Your task to perform on an android device: create a new album in the google photos Image 0: 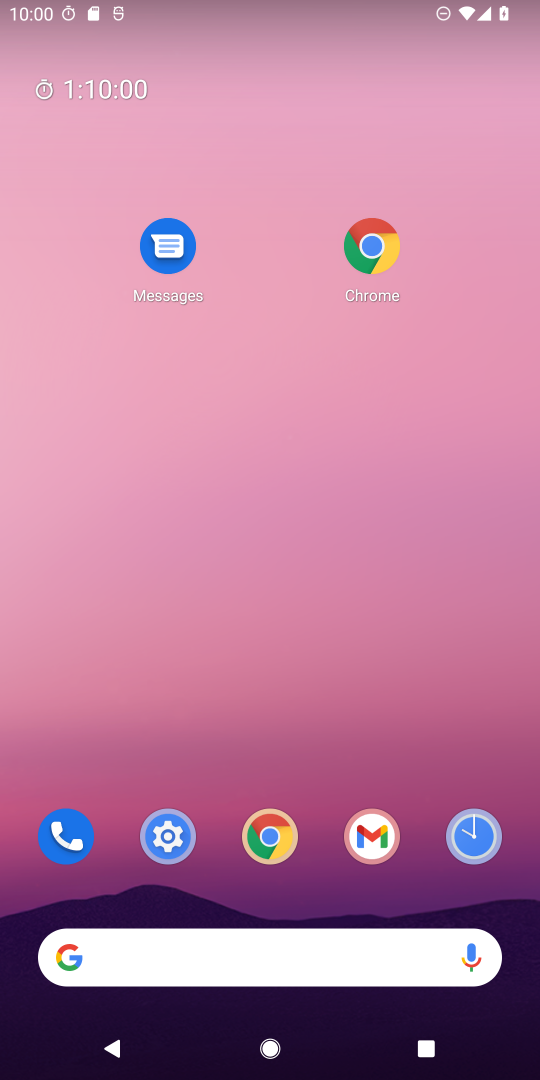
Step 0: drag from (129, 868) to (173, 66)
Your task to perform on an android device: create a new album in the google photos Image 1: 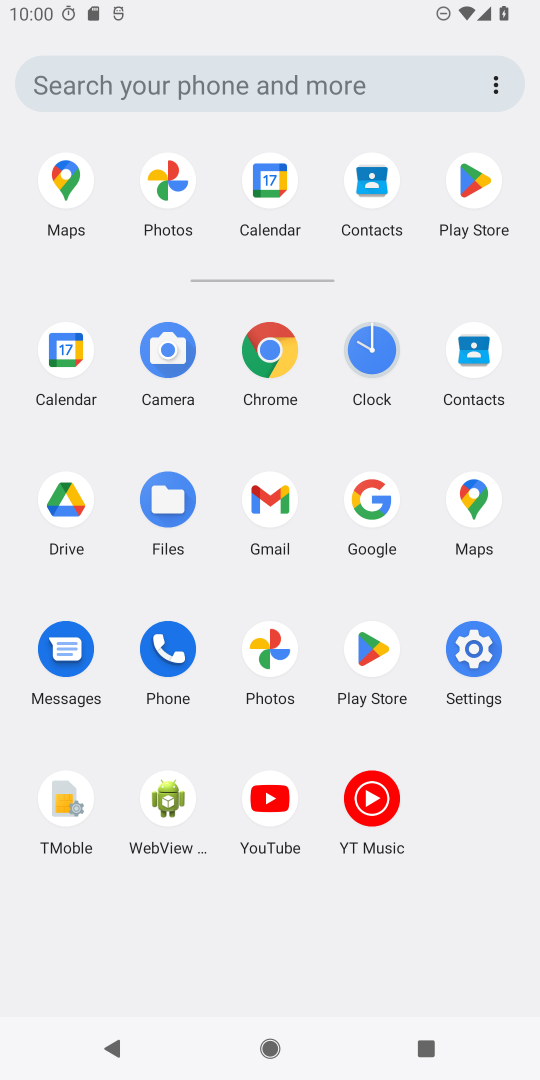
Step 1: click (245, 643)
Your task to perform on an android device: create a new album in the google photos Image 2: 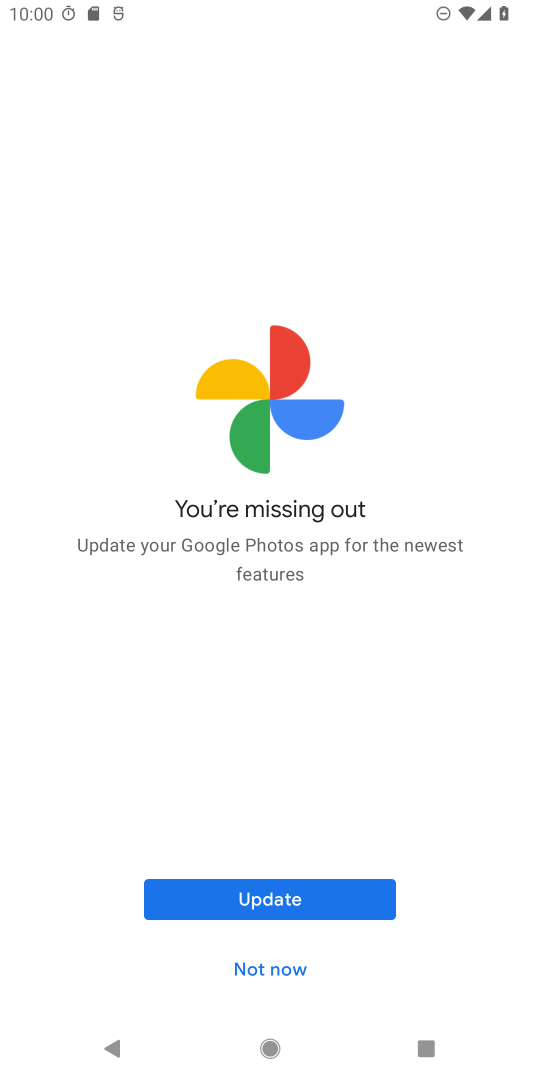
Step 2: click (250, 977)
Your task to perform on an android device: create a new album in the google photos Image 3: 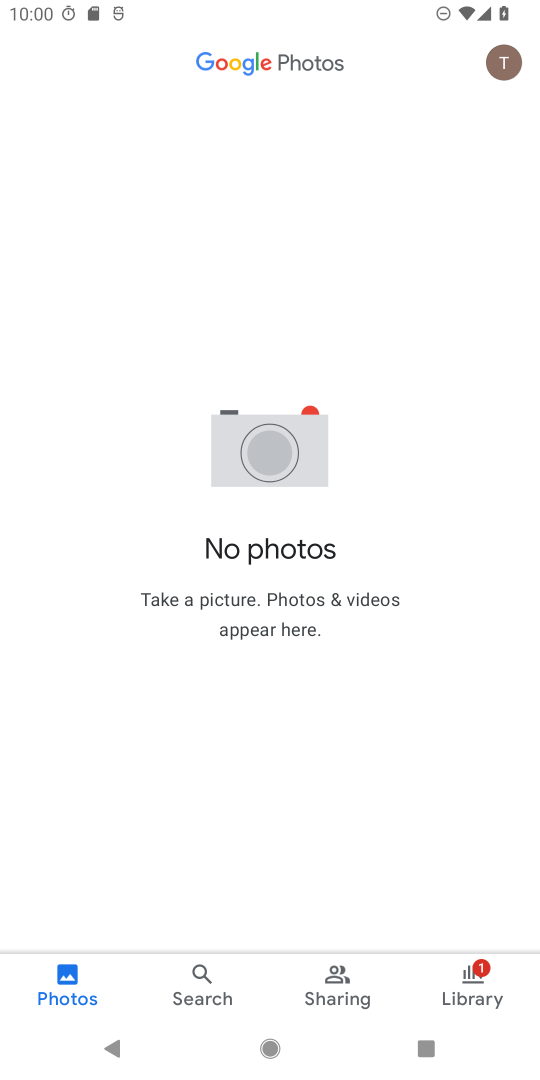
Step 3: click (202, 974)
Your task to perform on an android device: create a new album in the google photos Image 4: 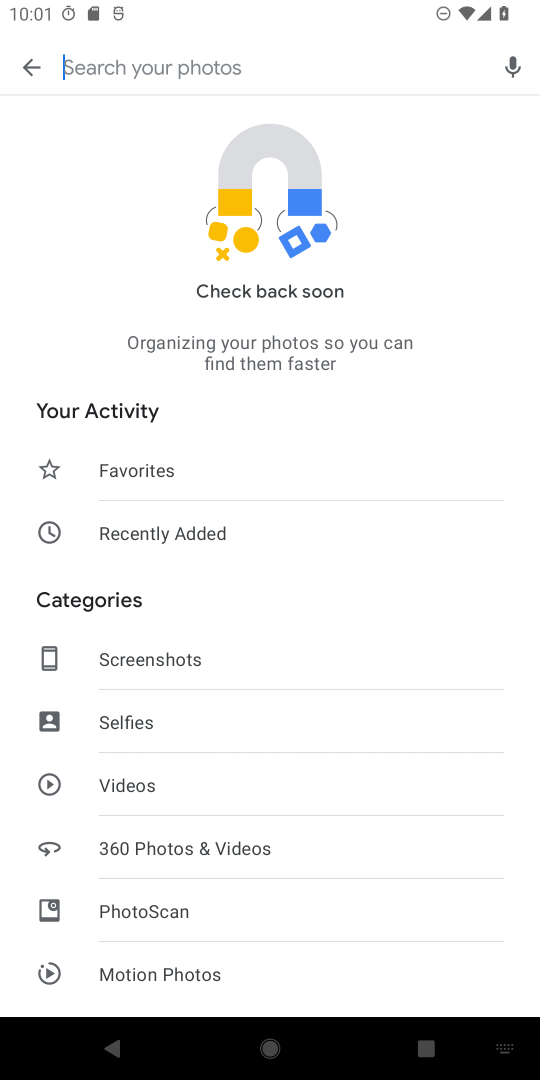
Step 4: click (82, 980)
Your task to perform on an android device: create a new album in the google photos Image 5: 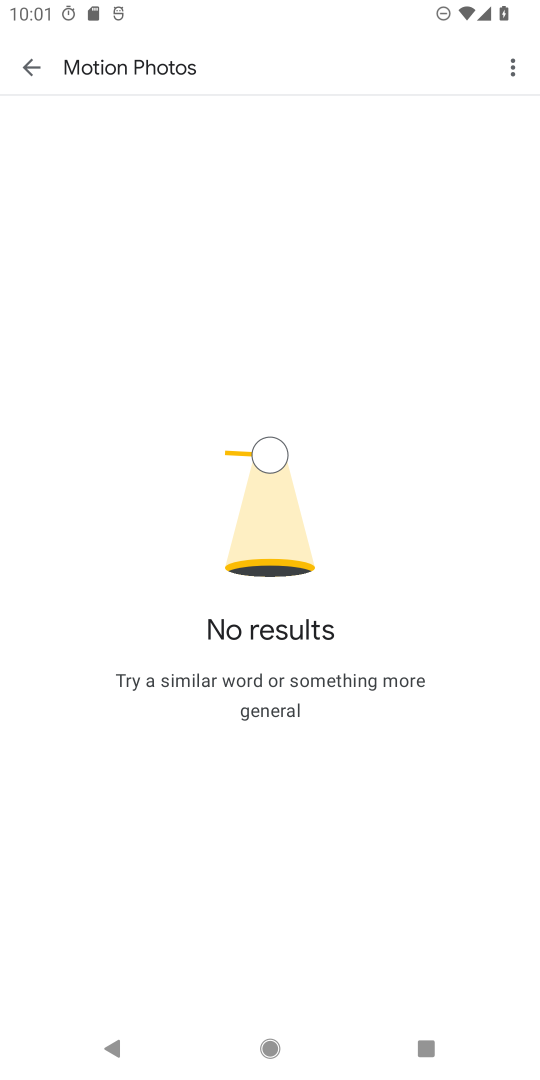
Step 5: task complete